Your task to perform on an android device: open app "Microsoft Excel" (install if not already installed) Image 0: 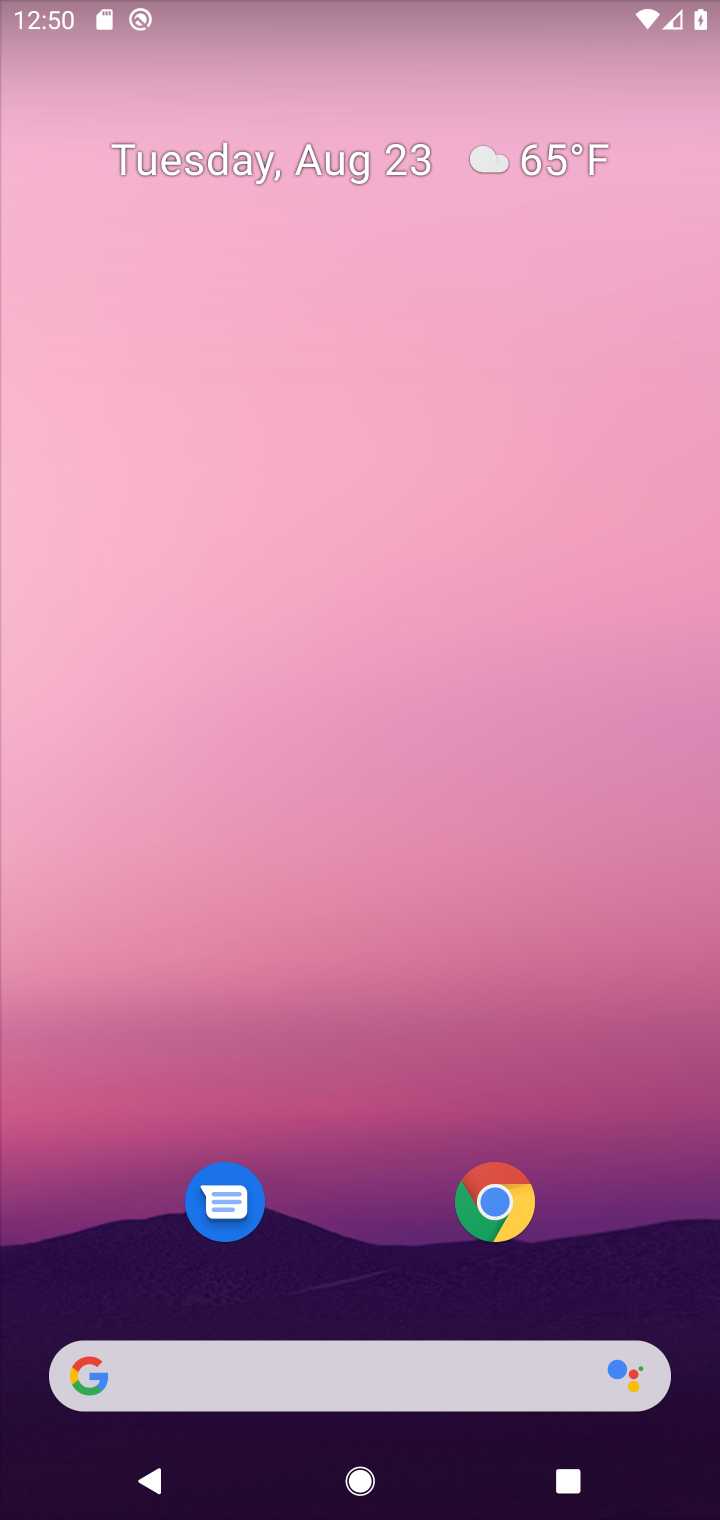
Step 0: drag from (359, 1054) to (324, 405)
Your task to perform on an android device: open app "Microsoft Excel" (install if not already installed) Image 1: 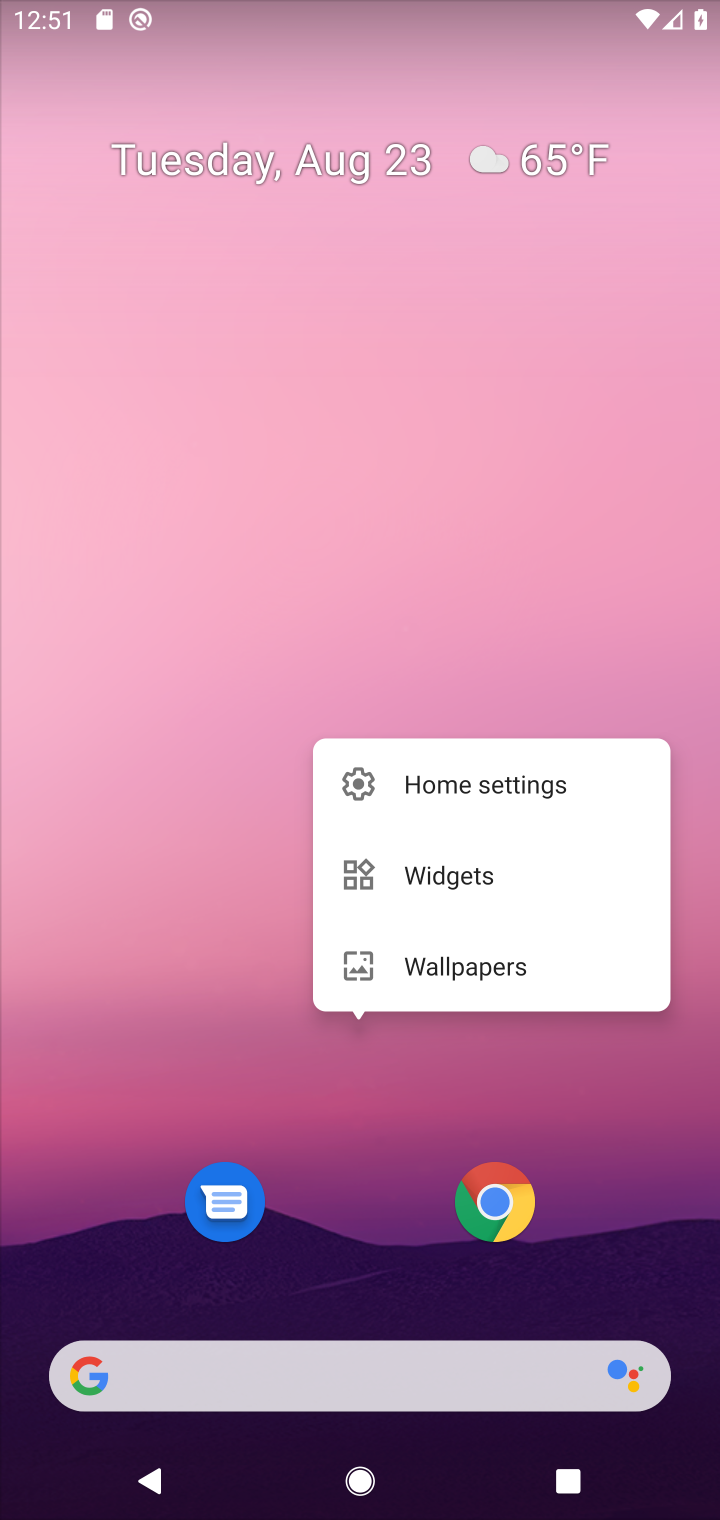
Step 1: click (342, 1365)
Your task to perform on an android device: open app "Microsoft Excel" (install if not already installed) Image 2: 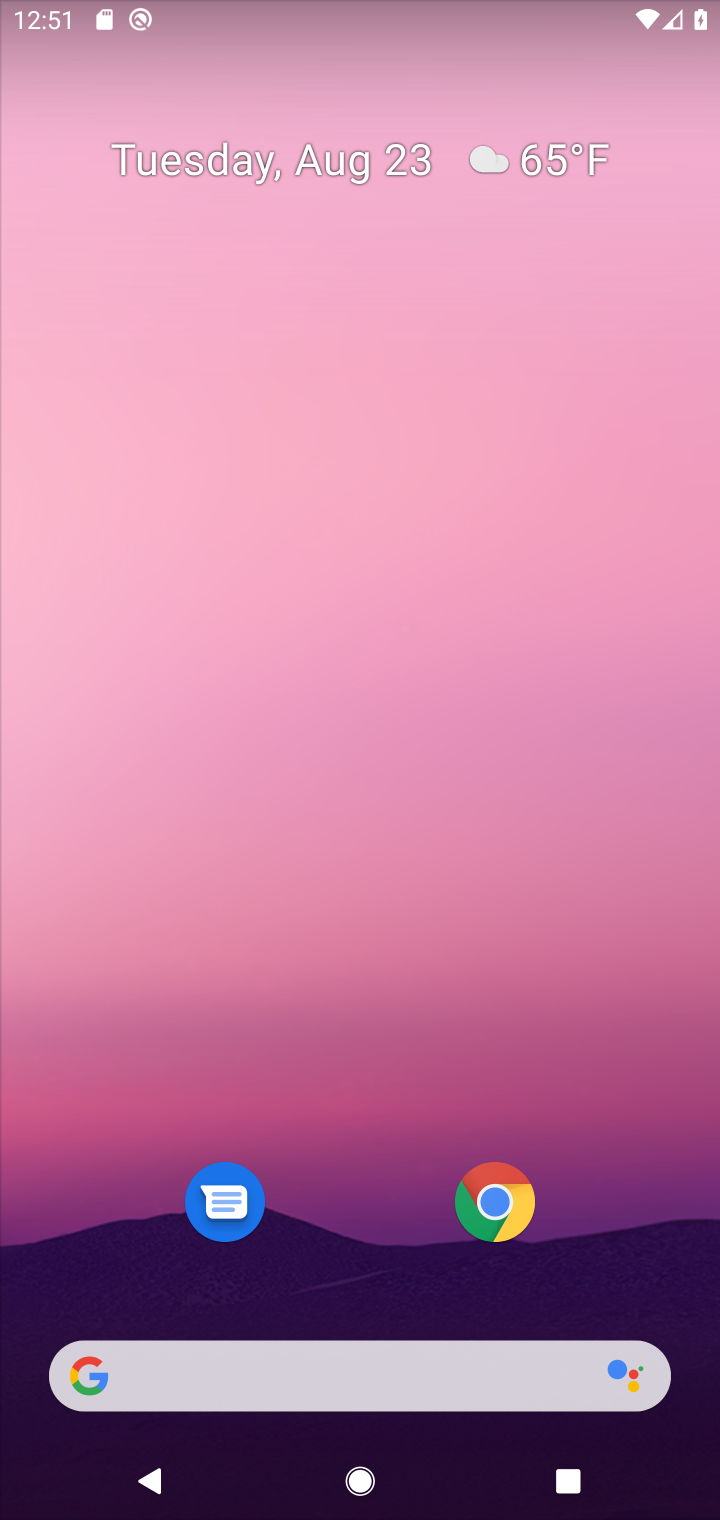
Step 2: drag from (342, 1337) to (370, 379)
Your task to perform on an android device: open app "Microsoft Excel" (install if not already installed) Image 3: 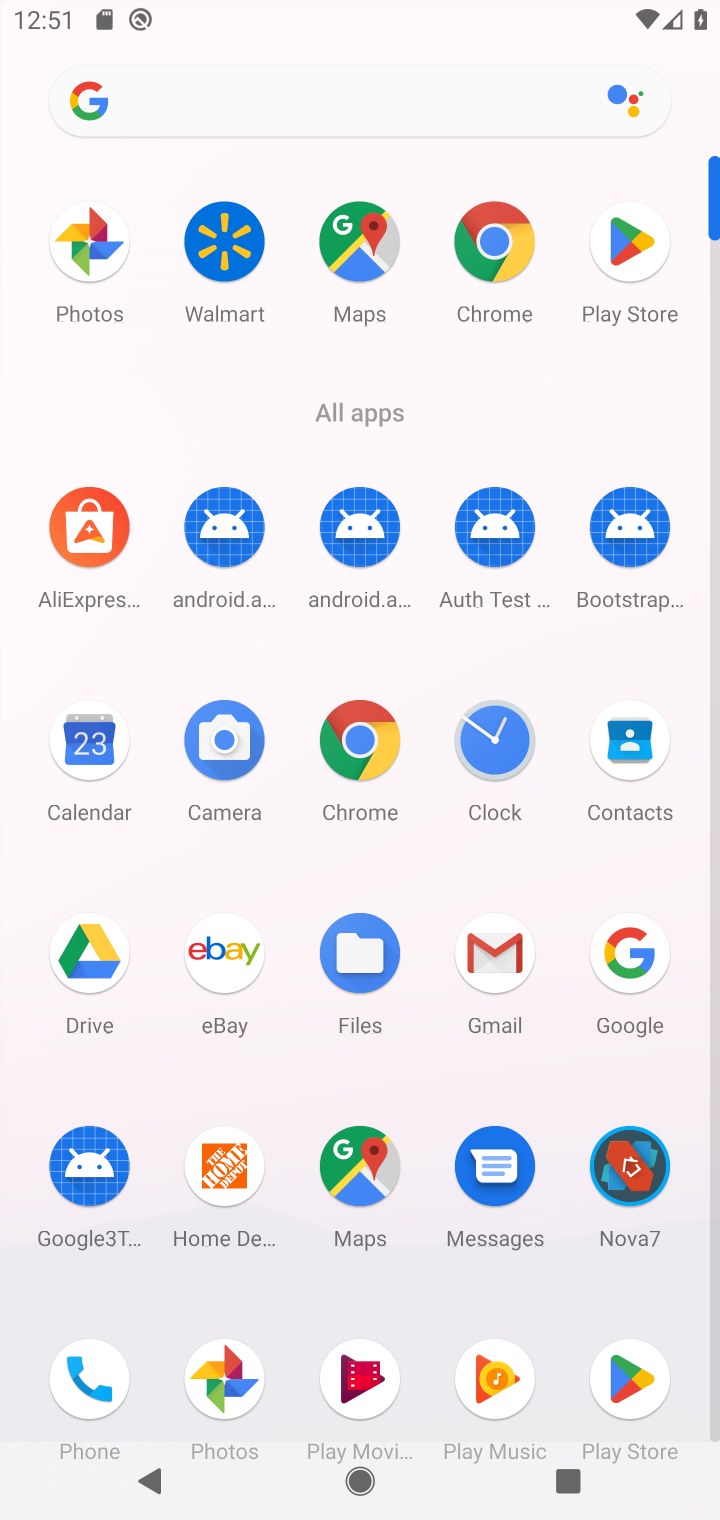
Step 3: click (639, 248)
Your task to perform on an android device: open app "Microsoft Excel" (install if not already installed) Image 4: 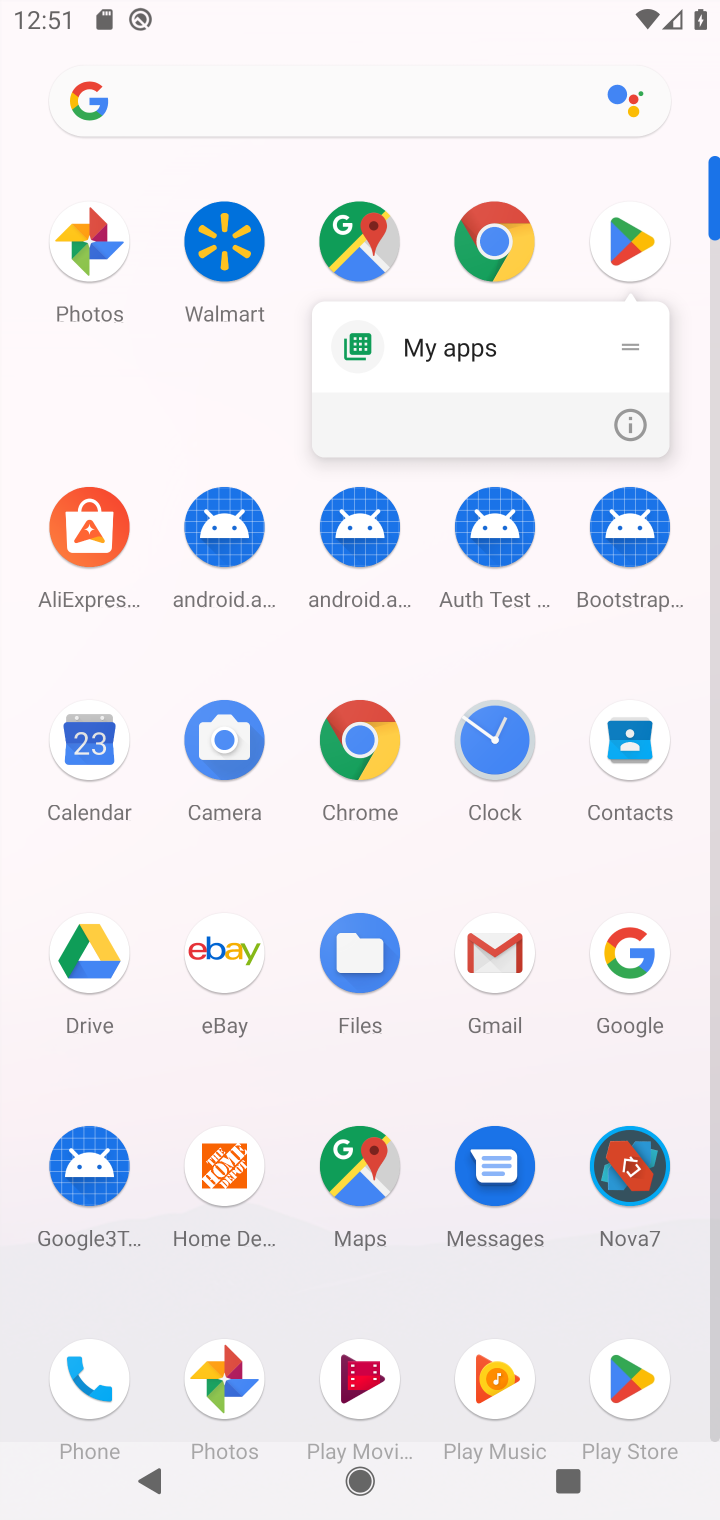
Step 4: click (617, 226)
Your task to perform on an android device: open app "Microsoft Excel" (install if not already installed) Image 5: 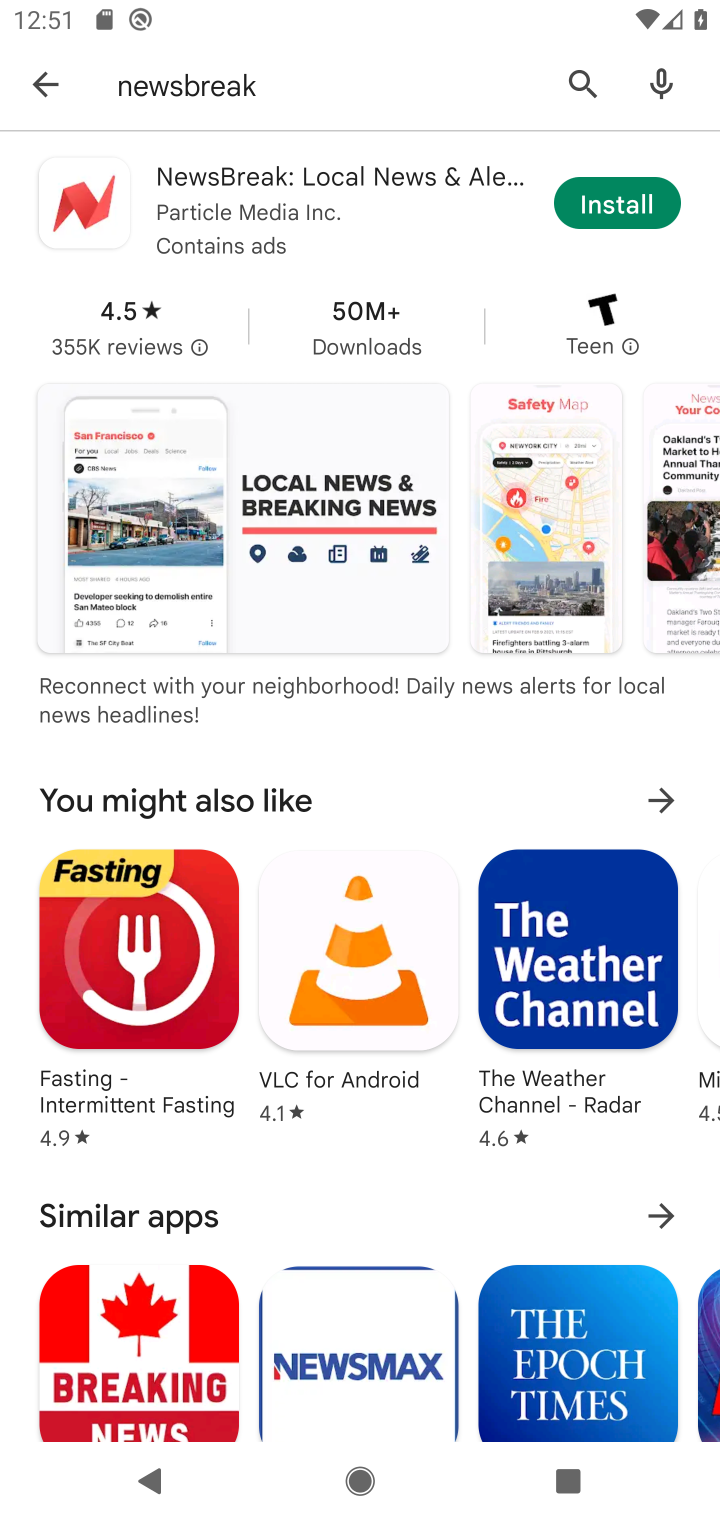
Step 5: click (571, 66)
Your task to perform on an android device: open app "Microsoft Excel" (install if not already installed) Image 6: 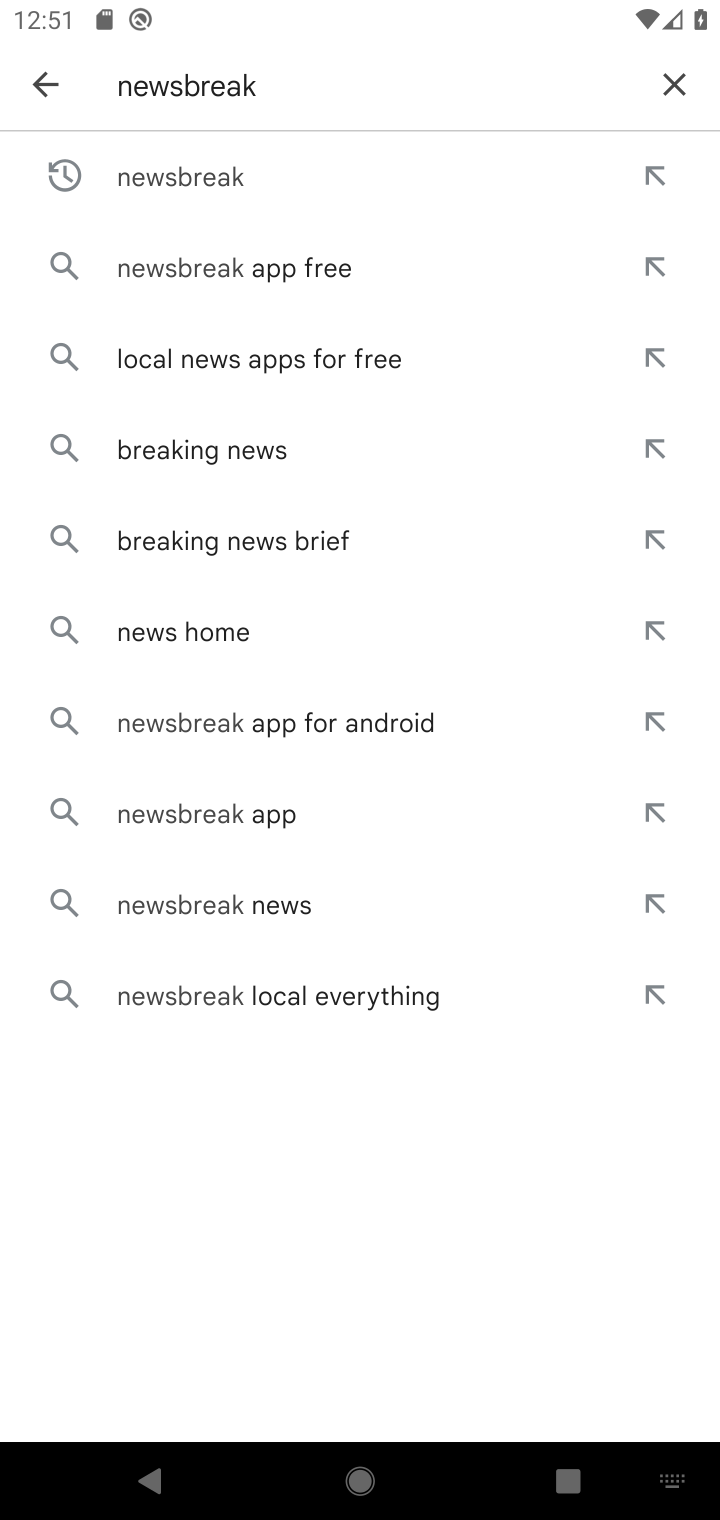
Step 6: click (665, 86)
Your task to perform on an android device: open app "Microsoft Excel" (install if not already installed) Image 7: 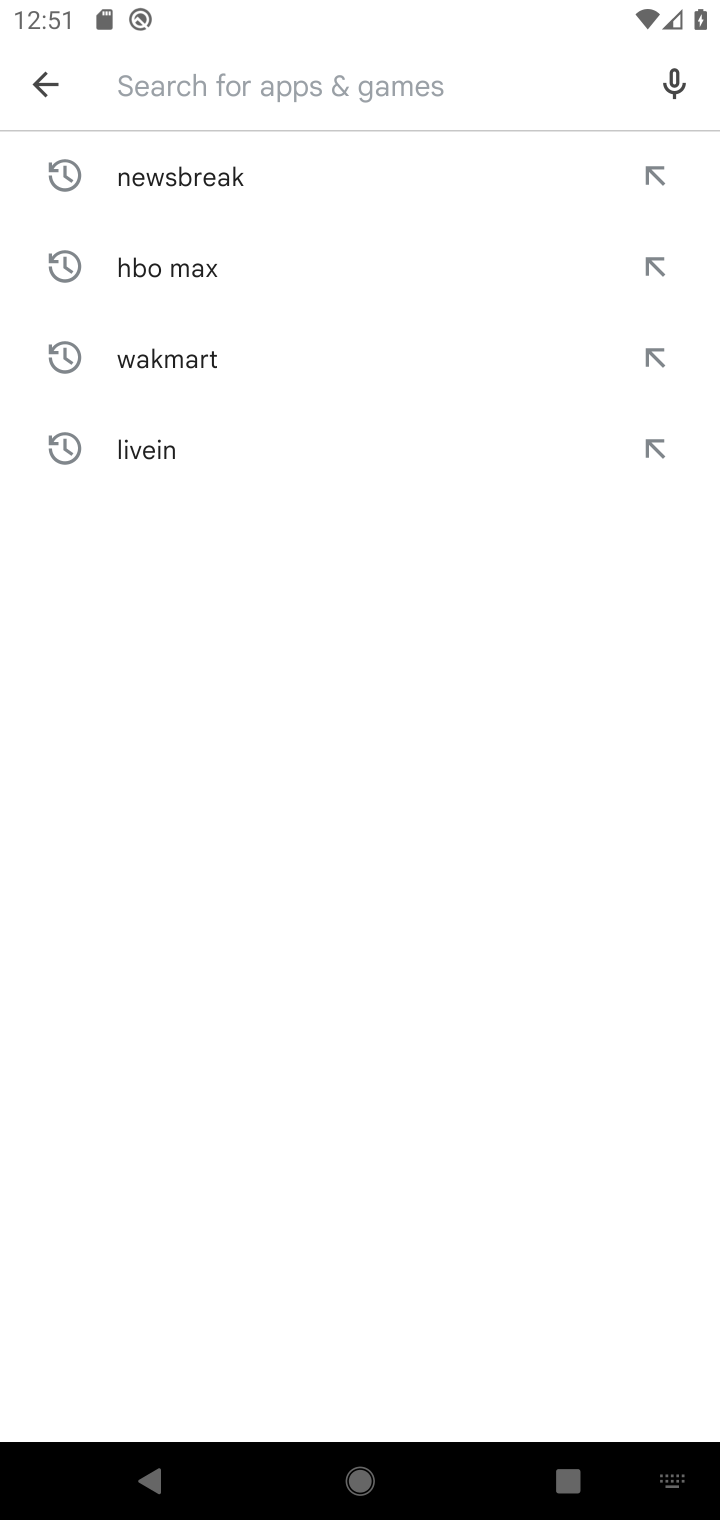
Step 7: type "microsoft excel"
Your task to perform on an android device: open app "Microsoft Excel" (install if not already installed) Image 8: 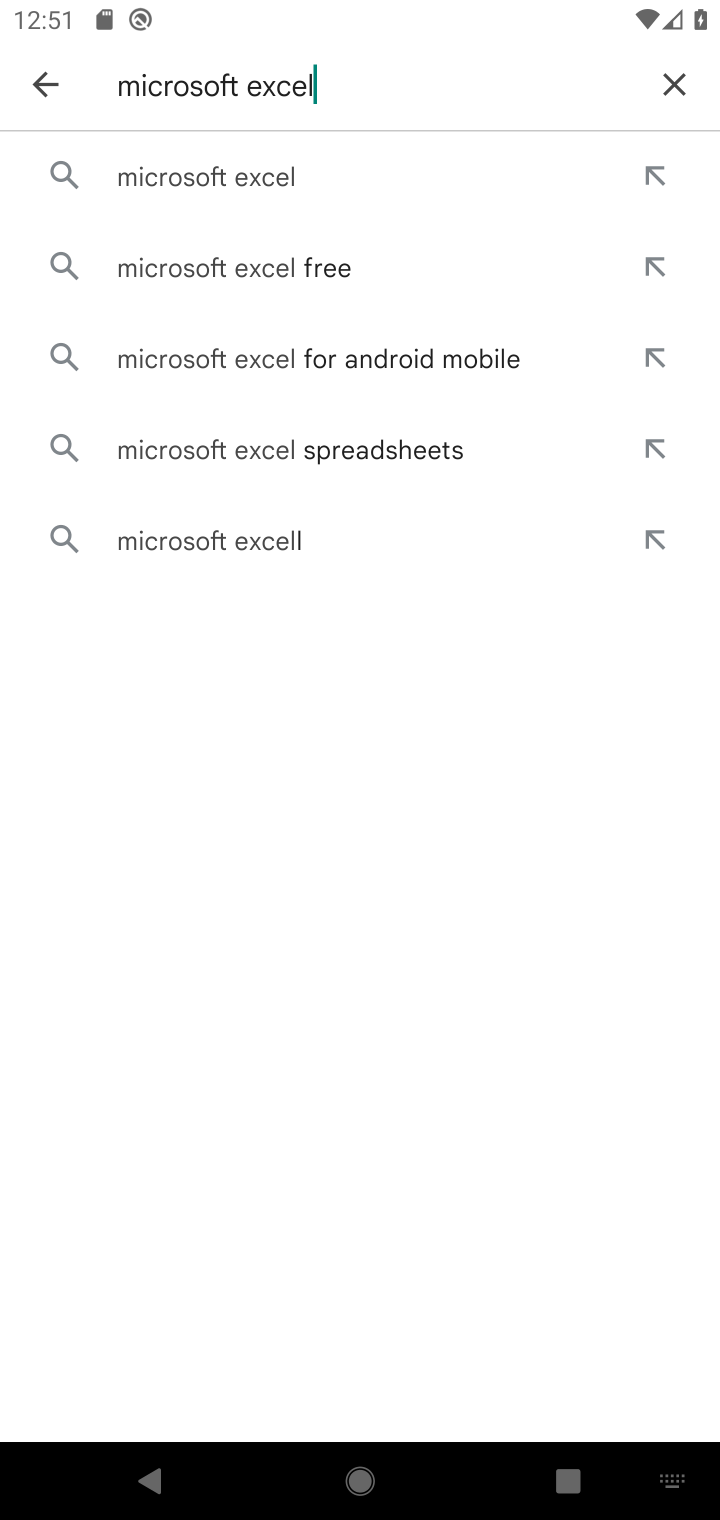
Step 8: click (356, 175)
Your task to perform on an android device: open app "Microsoft Excel" (install if not already installed) Image 9: 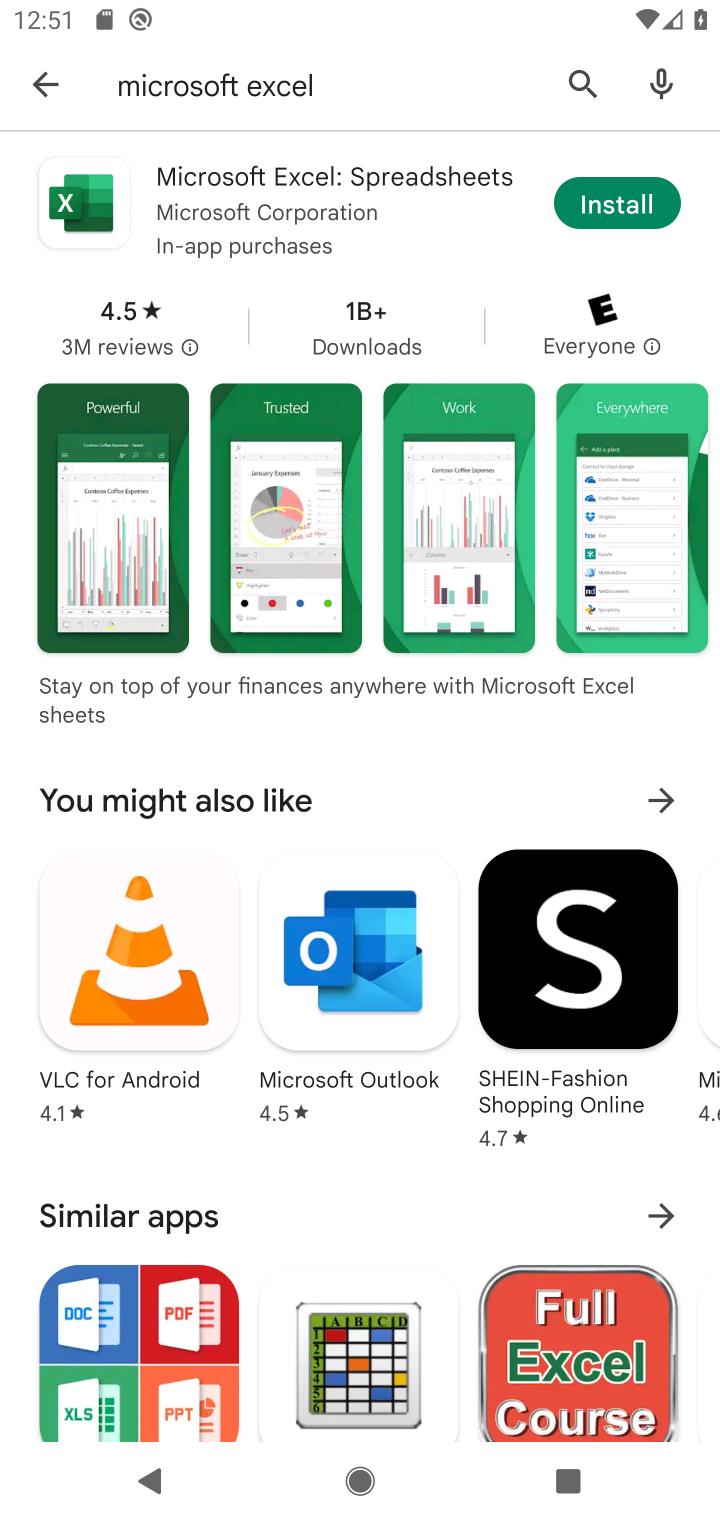
Step 9: click (606, 207)
Your task to perform on an android device: open app "Microsoft Excel" (install if not already installed) Image 10: 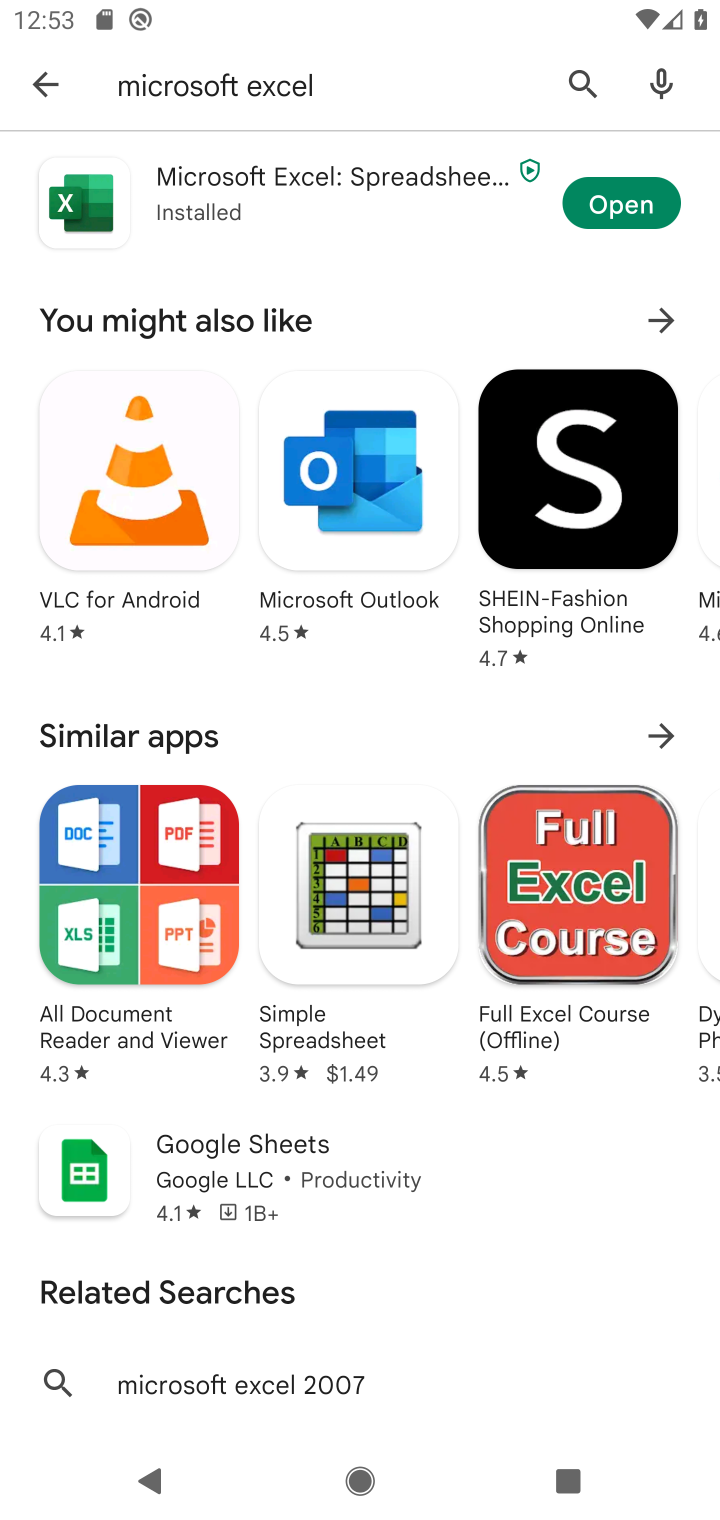
Step 10: click (610, 198)
Your task to perform on an android device: open app "Microsoft Excel" (install if not already installed) Image 11: 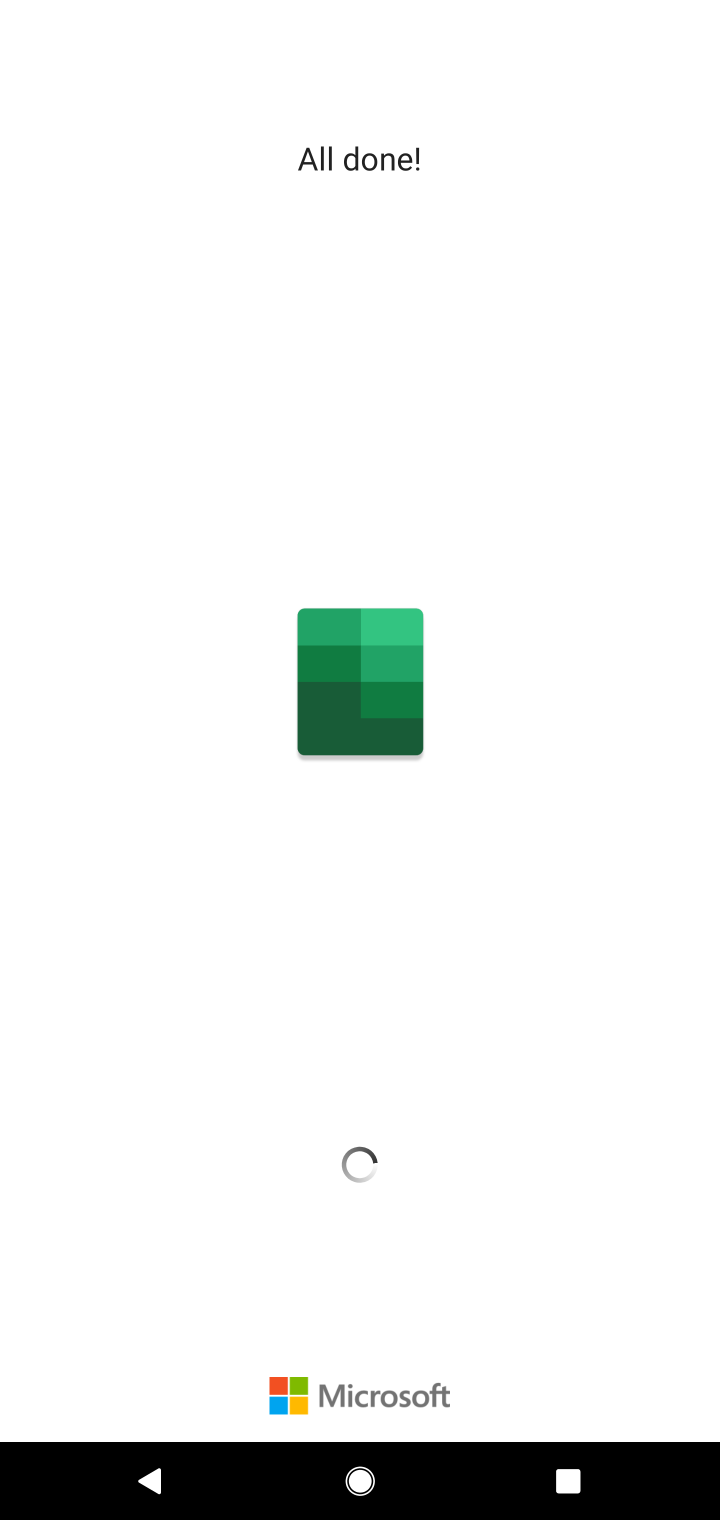
Step 11: task complete